Your task to perform on an android device: Go to accessibility settings Image 0: 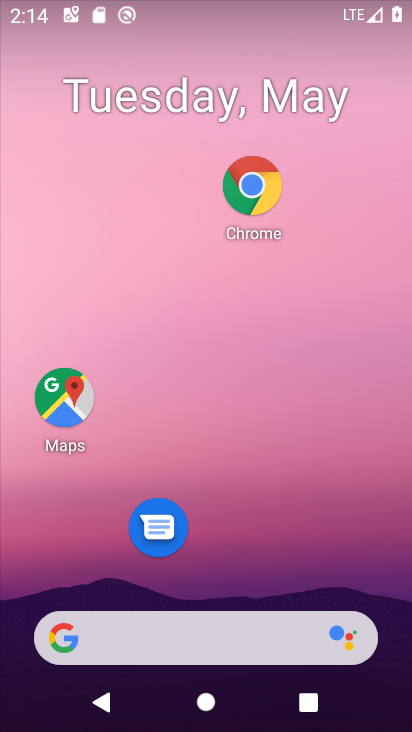
Step 0: drag from (331, 495) to (119, 25)
Your task to perform on an android device: Go to accessibility settings Image 1: 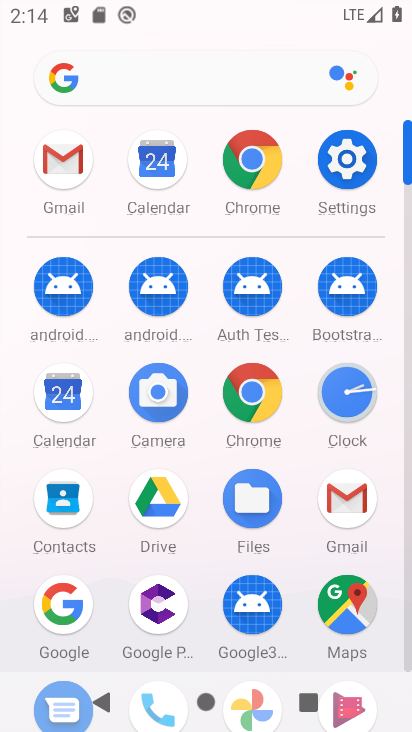
Step 1: click (343, 165)
Your task to perform on an android device: Go to accessibility settings Image 2: 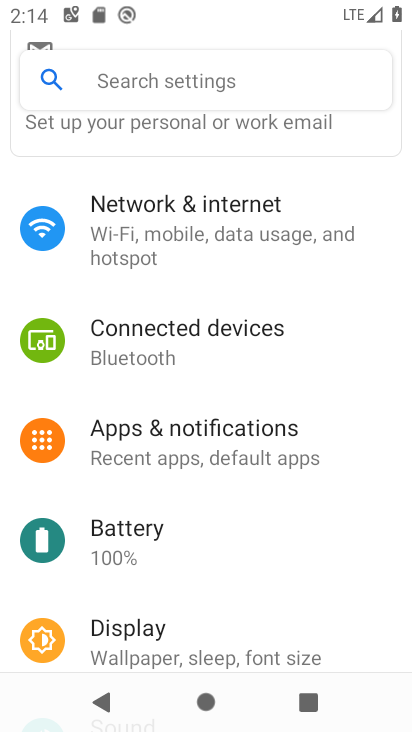
Step 2: drag from (195, 548) to (102, 268)
Your task to perform on an android device: Go to accessibility settings Image 3: 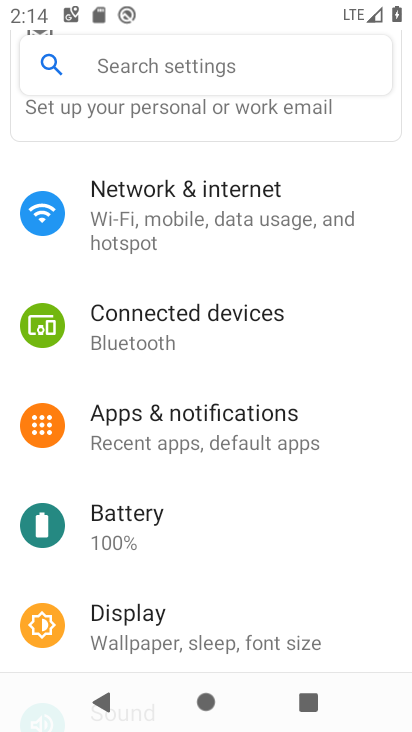
Step 3: drag from (217, 597) to (175, 335)
Your task to perform on an android device: Go to accessibility settings Image 4: 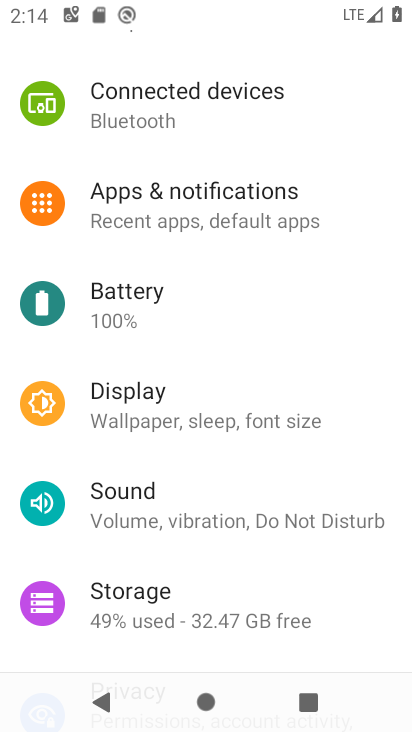
Step 4: drag from (213, 475) to (179, 234)
Your task to perform on an android device: Go to accessibility settings Image 5: 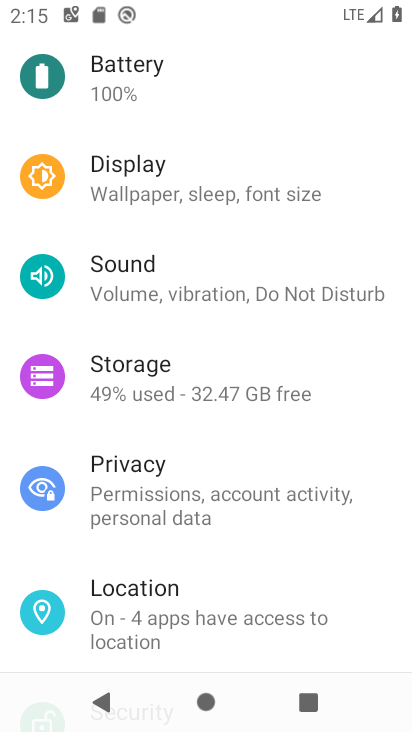
Step 5: drag from (197, 540) to (122, 195)
Your task to perform on an android device: Go to accessibility settings Image 6: 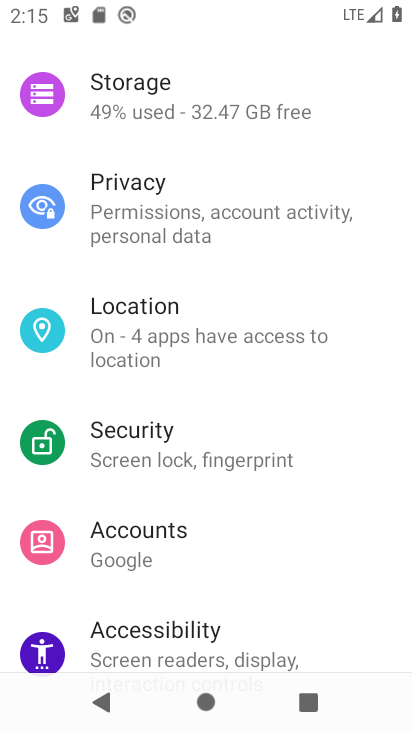
Step 6: click (151, 617)
Your task to perform on an android device: Go to accessibility settings Image 7: 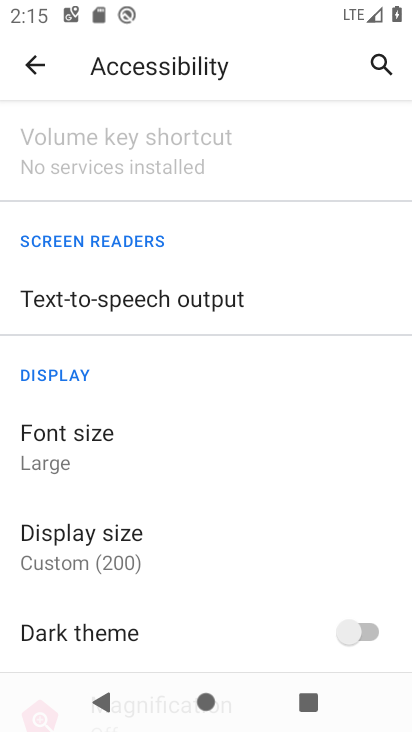
Step 7: task complete